Your task to perform on an android device: change timer sound Image 0: 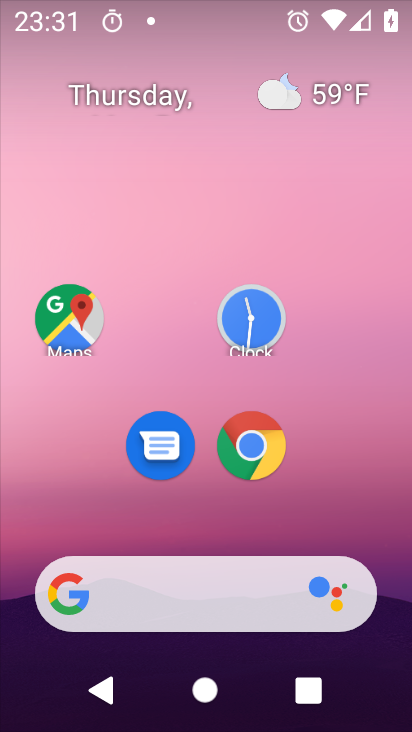
Step 0: click (273, 326)
Your task to perform on an android device: change timer sound Image 1: 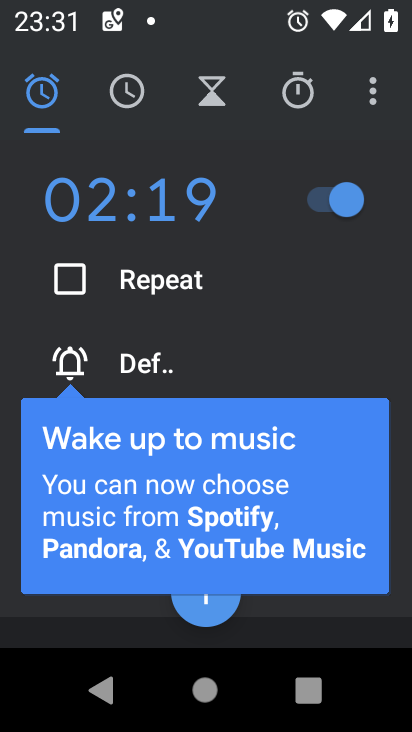
Step 1: click (374, 105)
Your task to perform on an android device: change timer sound Image 2: 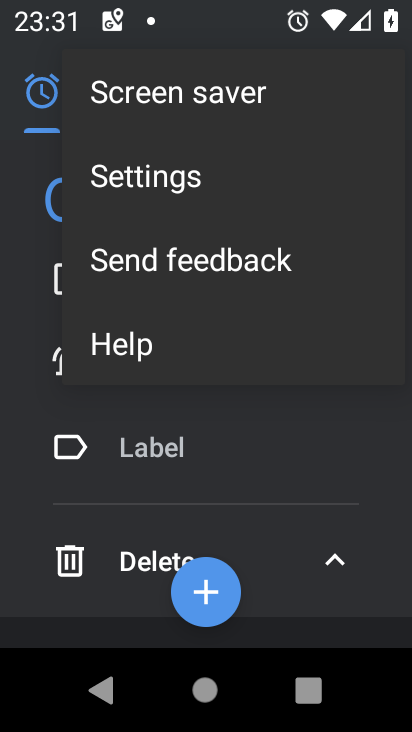
Step 2: click (166, 183)
Your task to perform on an android device: change timer sound Image 3: 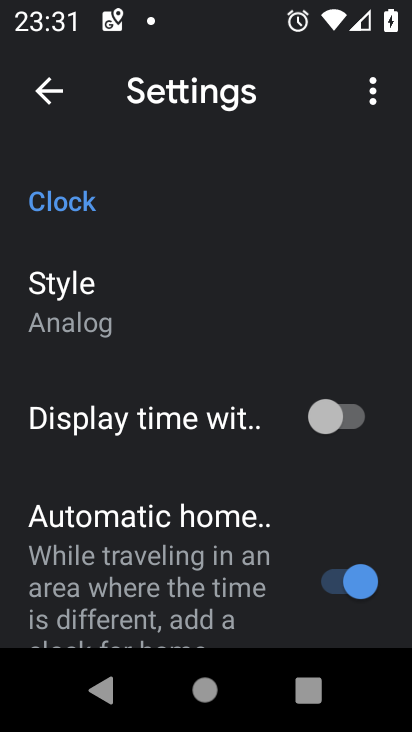
Step 3: drag from (186, 601) to (133, 10)
Your task to perform on an android device: change timer sound Image 4: 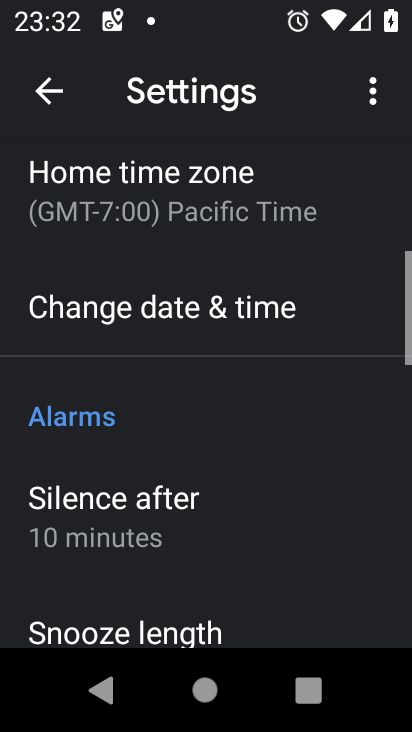
Step 4: drag from (138, 582) to (185, 63)
Your task to perform on an android device: change timer sound Image 5: 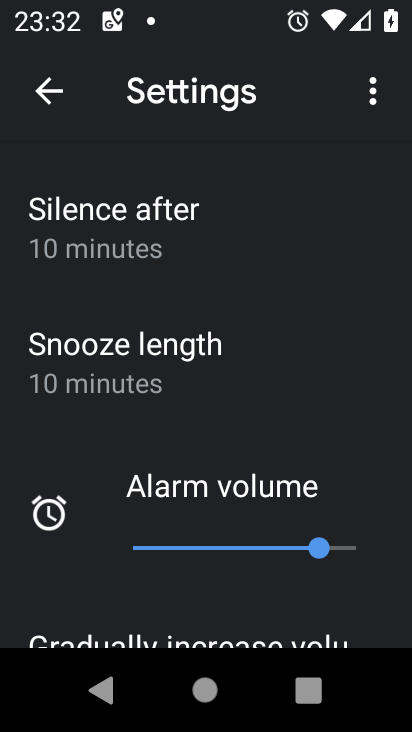
Step 5: drag from (155, 494) to (25, 61)
Your task to perform on an android device: change timer sound Image 6: 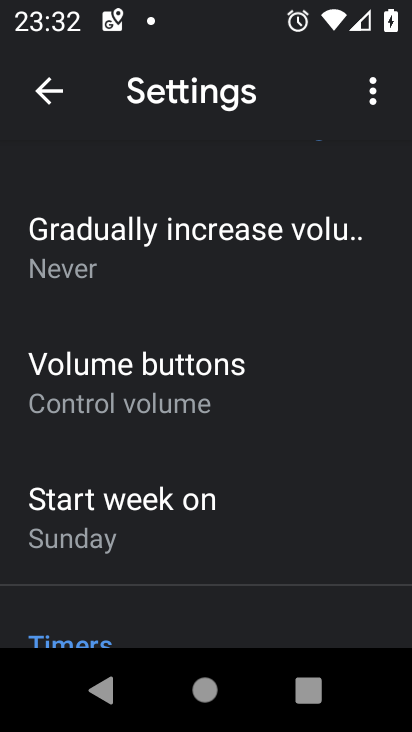
Step 6: drag from (190, 554) to (170, 208)
Your task to perform on an android device: change timer sound Image 7: 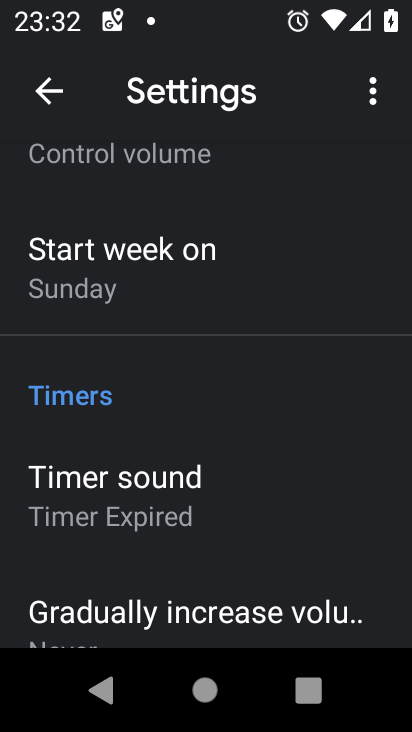
Step 7: click (196, 460)
Your task to perform on an android device: change timer sound Image 8: 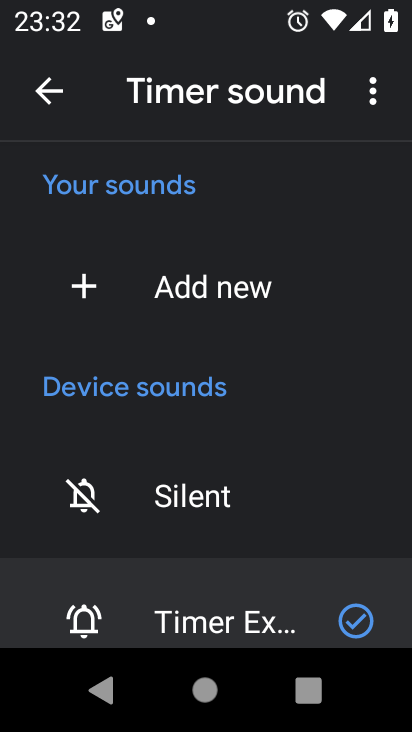
Step 8: drag from (214, 538) to (208, 82)
Your task to perform on an android device: change timer sound Image 9: 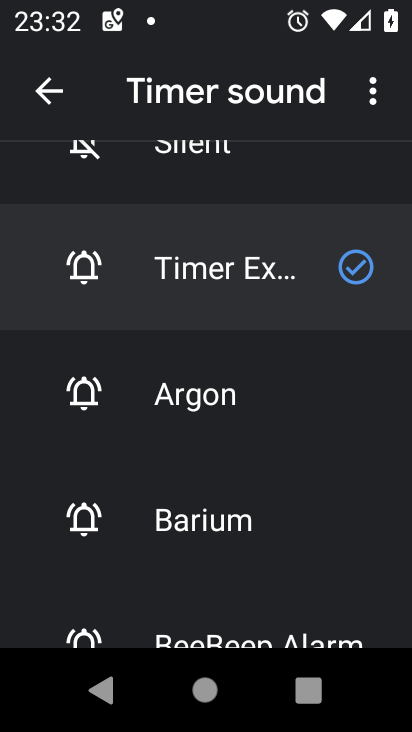
Step 9: click (282, 523)
Your task to perform on an android device: change timer sound Image 10: 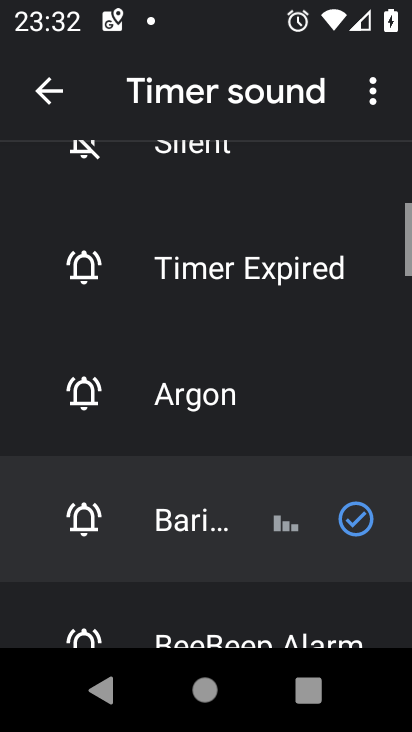
Step 10: task complete